Your task to perform on an android device: turn off translation in the chrome app Image 0: 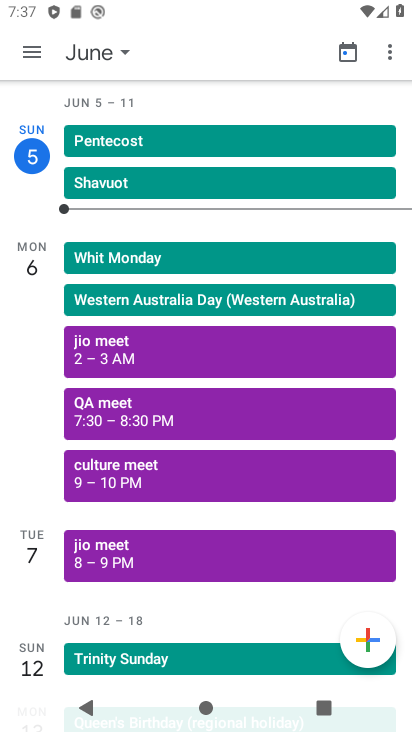
Step 0: press home button
Your task to perform on an android device: turn off translation in the chrome app Image 1: 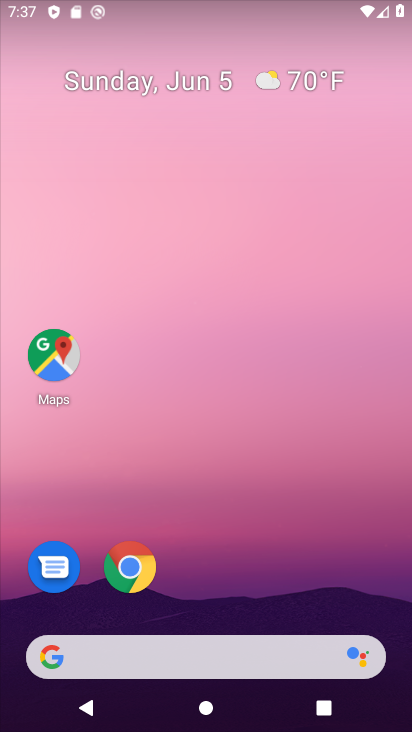
Step 1: drag from (206, 591) to (160, 6)
Your task to perform on an android device: turn off translation in the chrome app Image 2: 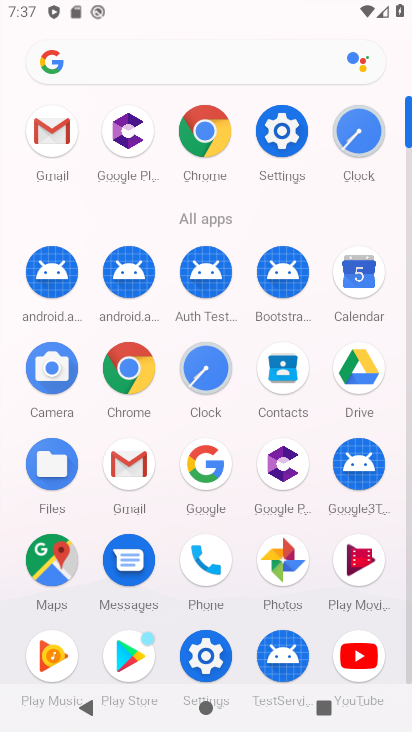
Step 2: click (289, 135)
Your task to perform on an android device: turn off translation in the chrome app Image 3: 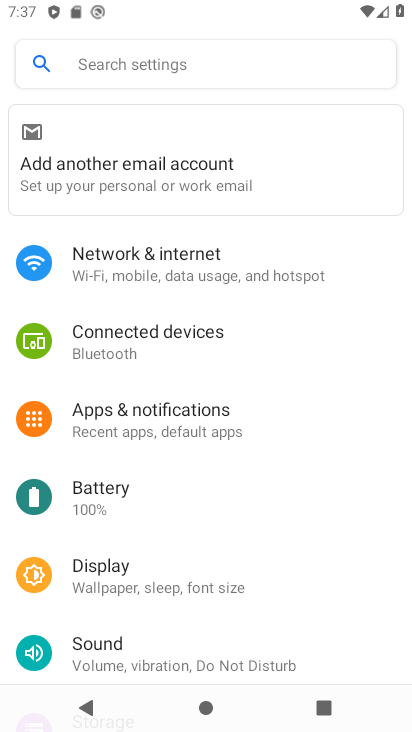
Step 3: task complete